Your task to perform on an android device: Go to Maps Image 0: 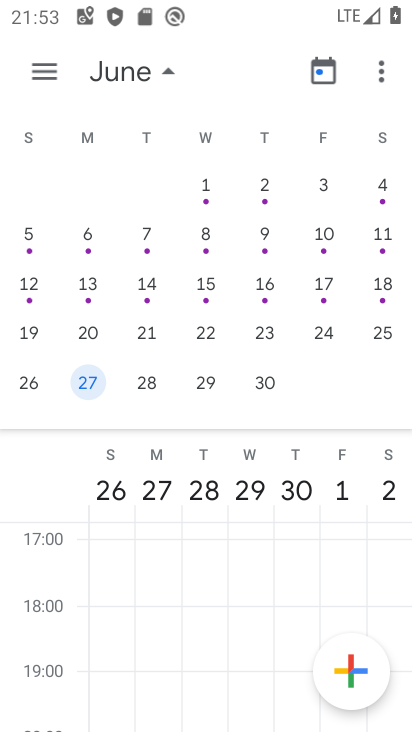
Step 0: press home button
Your task to perform on an android device: Go to Maps Image 1: 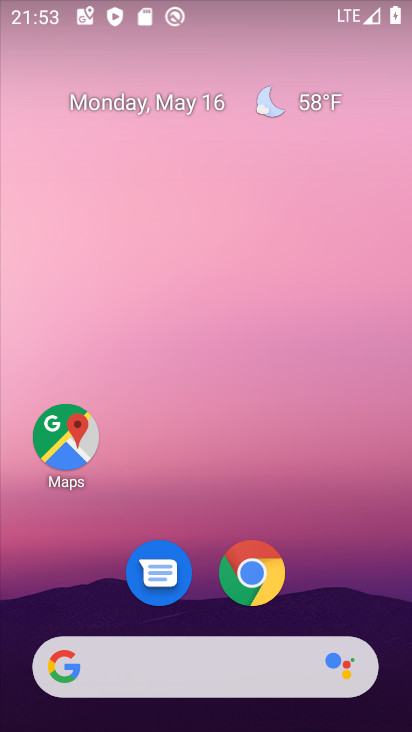
Step 1: drag from (198, 727) to (180, 73)
Your task to perform on an android device: Go to Maps Image 2: 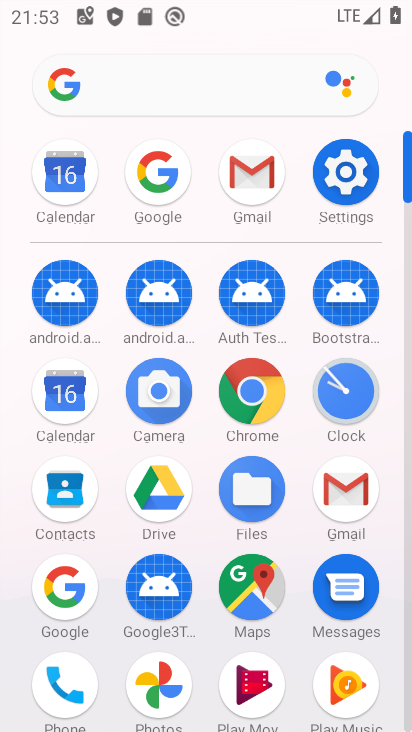
Step 2: click (254, 580)
Your task to perform on an android device: Go to Maps Image 3: 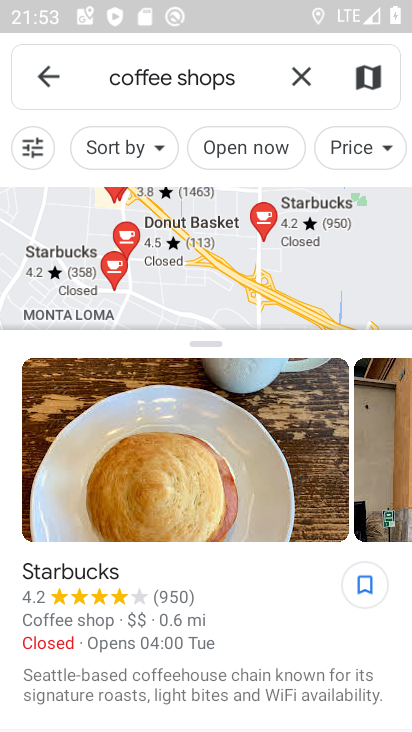
Step 3: task complete